Your task to perform on an android device: What's on my calendar today? Image 0: 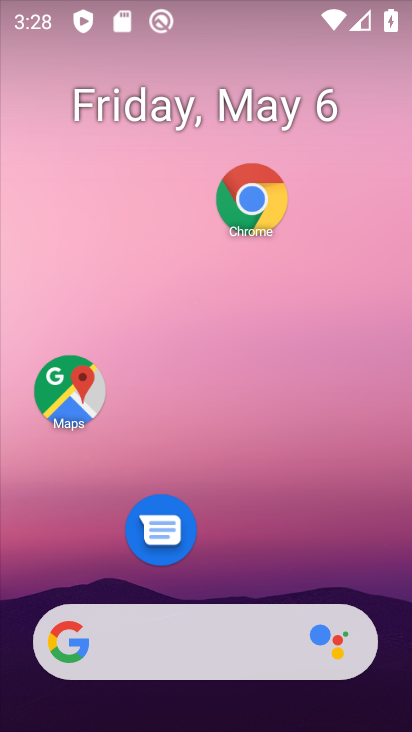
Step 0: drag from (253, 637) to (242, 468)
Your task to perform on an android device: What's on my calendar today? Image 1: 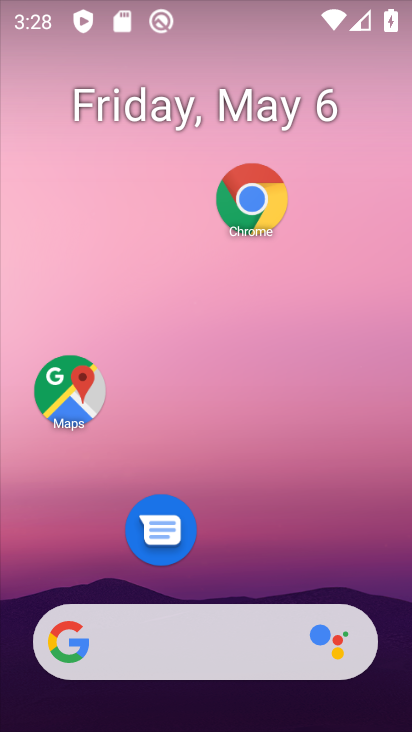
Step 1: drag from (269, 547) to (252, 213)
Your task to perform on an android device: What's on my calendar today? Image 2: 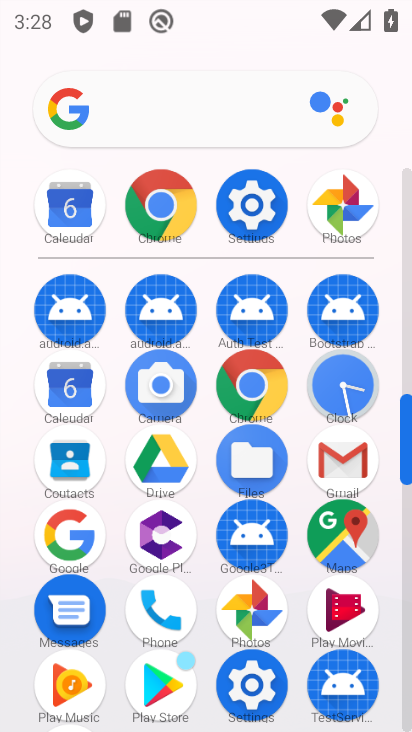
Step 2: click (81, 375)
Your task to perform on an android device: What's on my calendar today? Image 3: 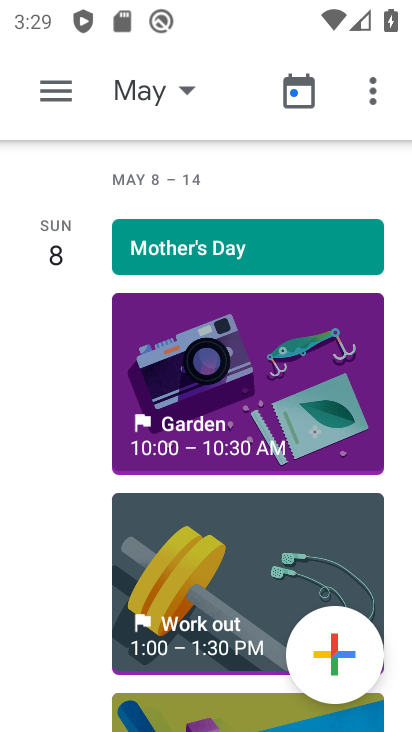
Step 3: task complete